Your task to perform on an android device: Open Yahoo.com Image 0: 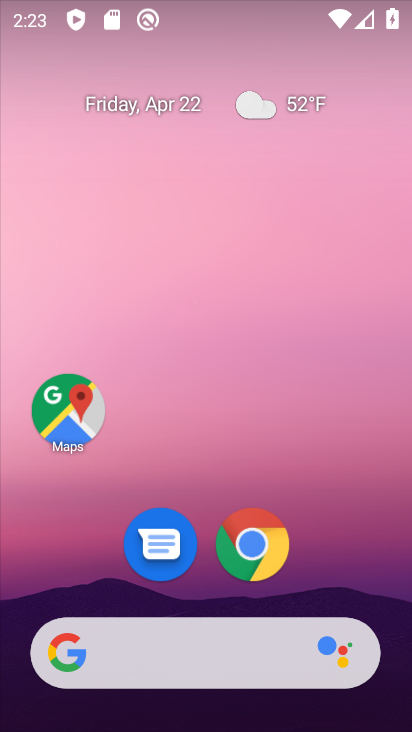
Step 0: drag from (206, 614) to (315, 8)
Your task to perform on an android device: Open Yahoo.com Image 1: 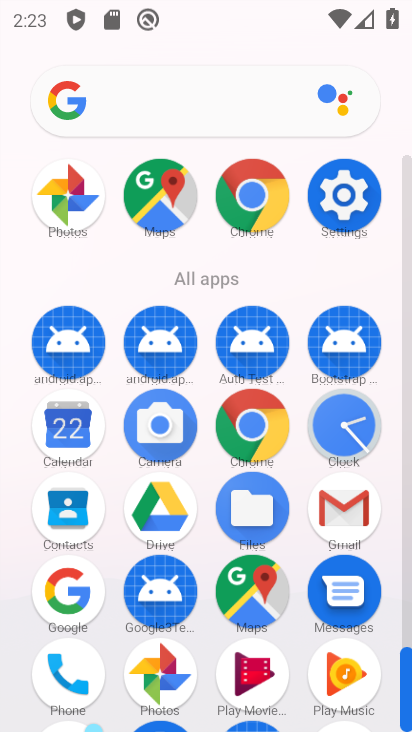
Step 1: drag from (209, 632) to (205, 153)
Your task to perform on an android device: Open Yahoo.com Image 2: 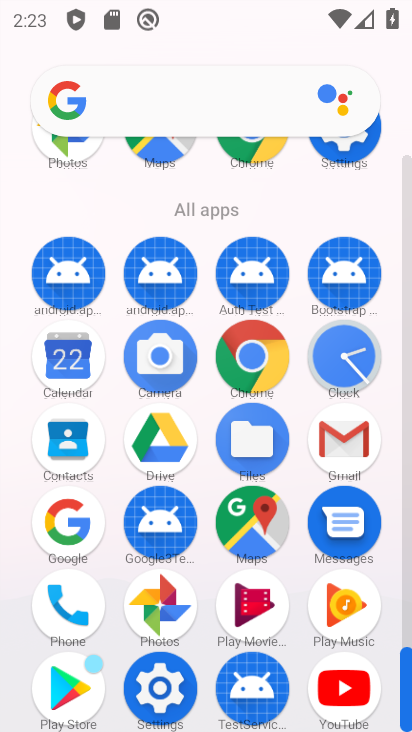
Step 2: click (263, 357)
Your task to perform on an android device: Open Yahoo.com Image 3: 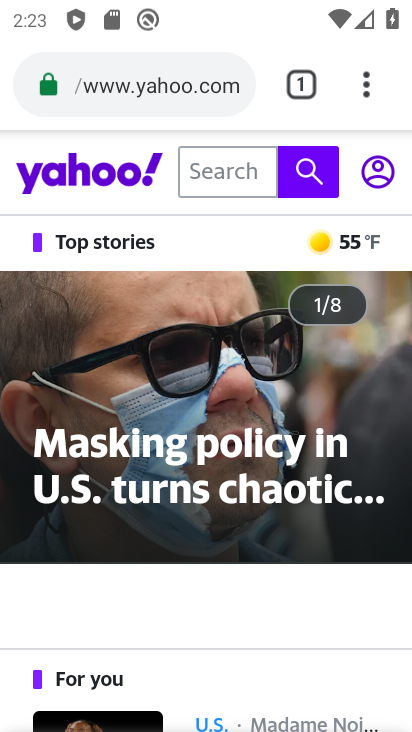
Step 3: task complete